Your task to perform on an android device: Show me productivity apps on the Play Store Image 0: 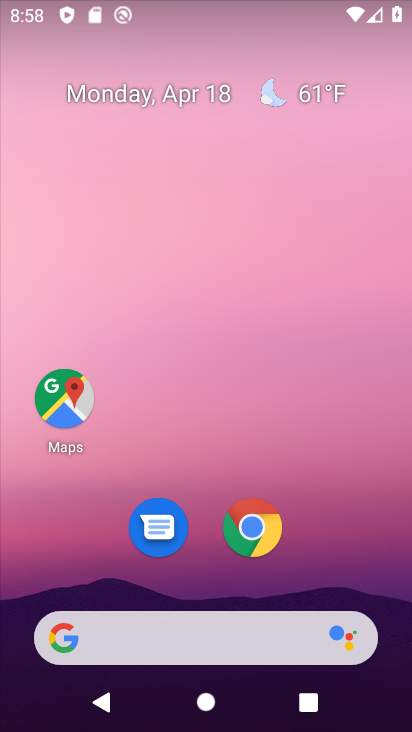
Step 0: drag from (194, 451) to (259, 30)
Your task to perform on an android device: Show me productivity apps on the Play Store Image 1: 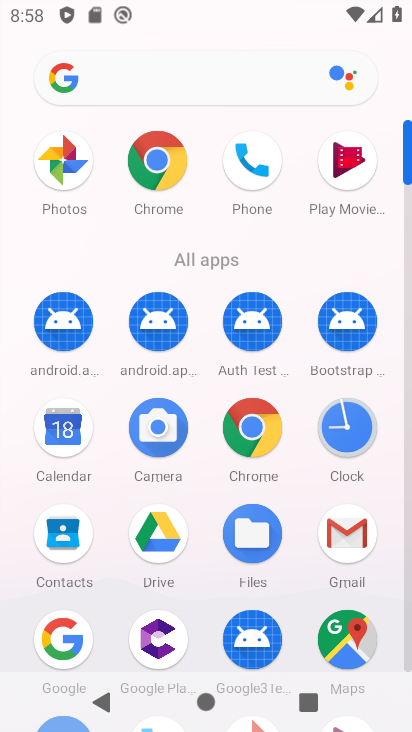
Step 1: drag from (198, 587) to (212, 148)
Your task to perform on an android device: Show me productivity apps on the Play Store Image 2: 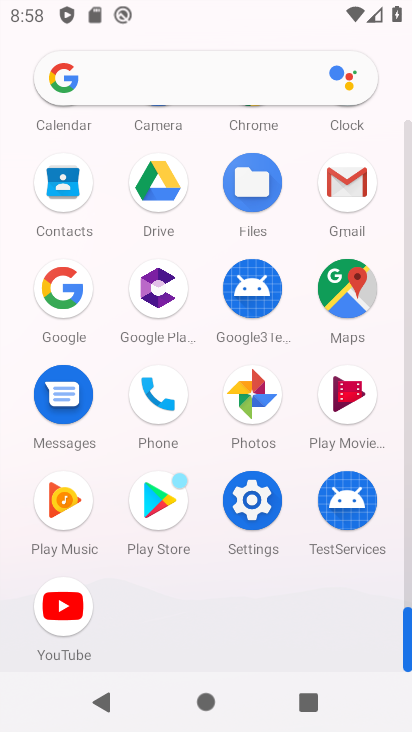
Step 2: click (173, 513)
Your task to perform on an android device: Show me productivity apps on the Play Store Image 3: 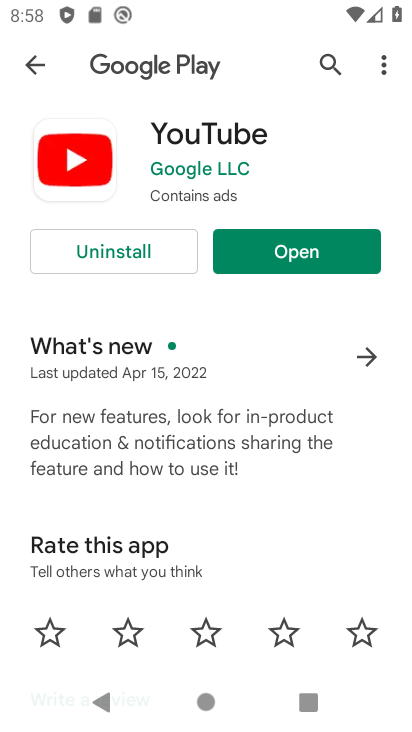
Step 3: click (25, 67)
Your task to perform on an android device: Show me productivity apps on the Play Store Image 4: 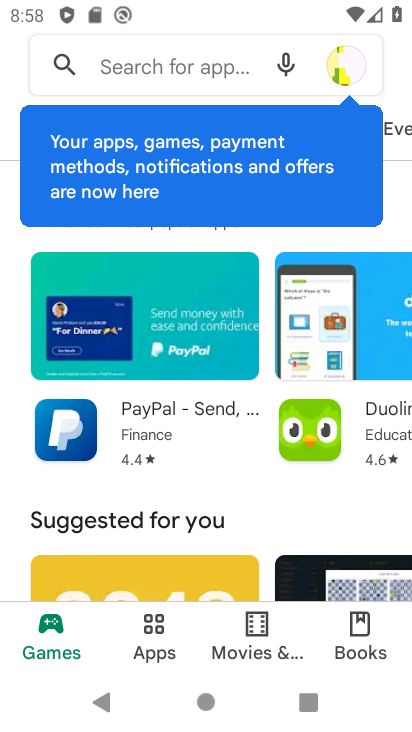
Step 4: click (154, 643)
Your task to perform on an android device: Show me productivity apps on the Play Store Image 5: 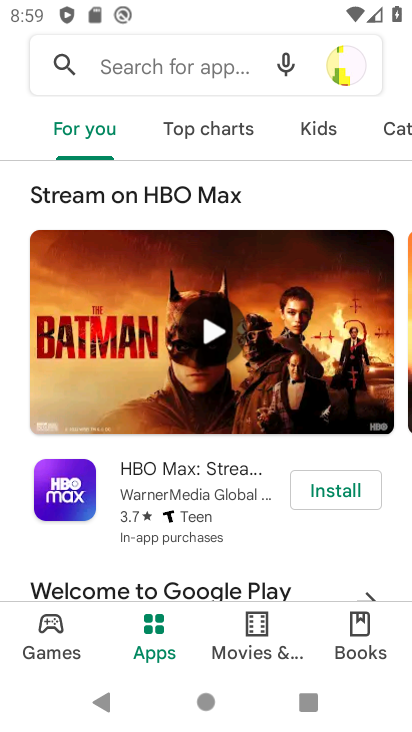
Step 5: click (190, 124)
Your task to perform on an android device: Show me productivity apps on the Play Store Image 6: 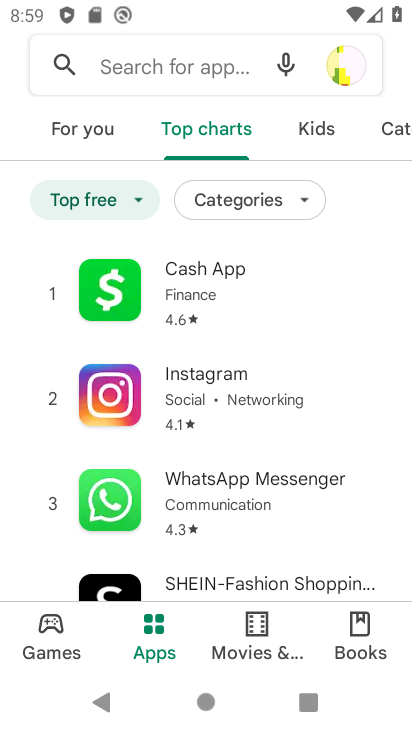
Step 6: click (305, 129)
Your task to perform on an android device: Show me productivity apps on the Play Store Image 7: 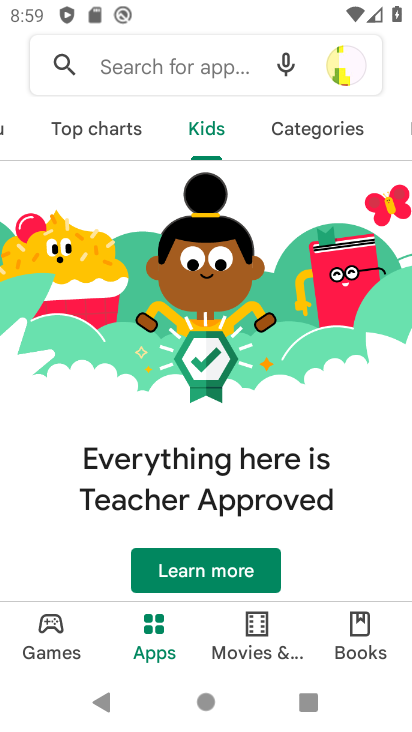
Step 7: click (305, 129)
Your task to perform on an android device: Show me productivity apps on the Play Store Image 8: 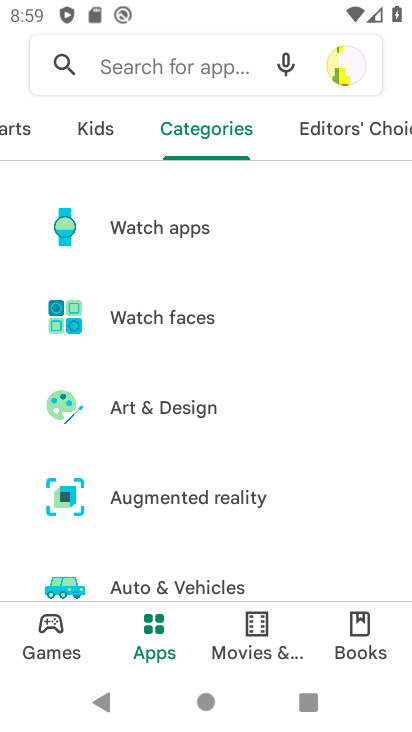
Step 8: drag from (138, 550) to (195, 109)
Your task to perform on an android device: Show me productivity apps on the Play Store Image 9: 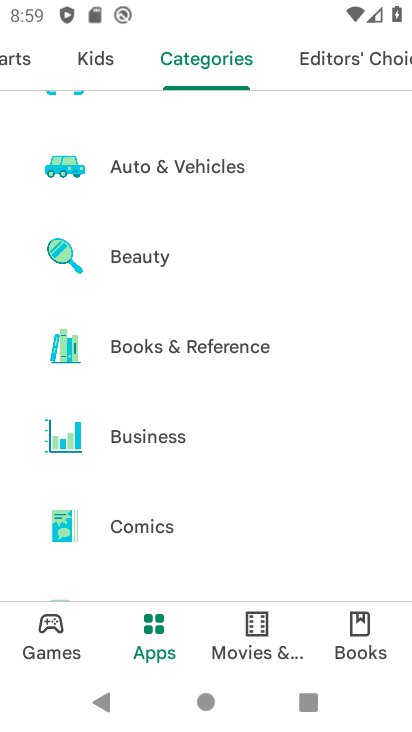
Step 9: drag from (199, 455) to (242, 9)
Your task to perform on an android device: Show me productivity apps on the Play Store Image 10: 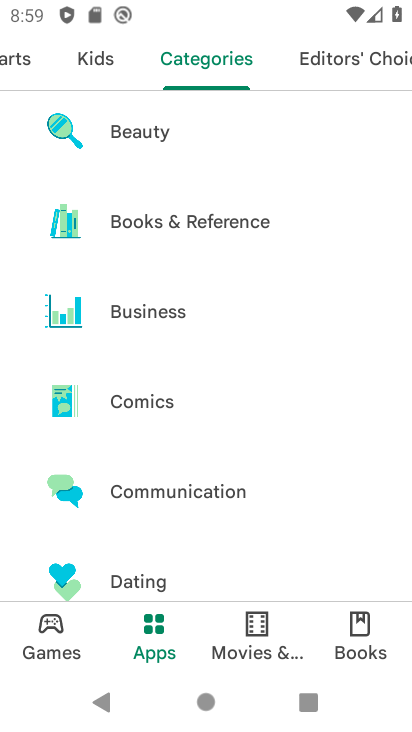
Step 10: drag from (172, 568) to (227, 205)
Your task to perform on an android device: Show me productivity apps on the Play Store Image 11: 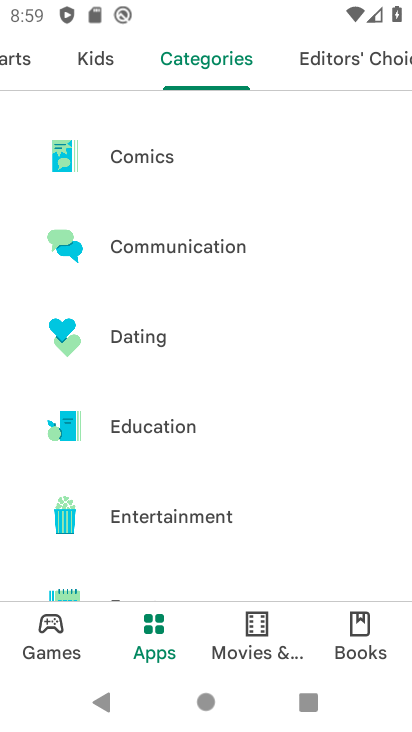
Step 11: drag from (177, 513) to (227, 97)
Your task to perform on an android device: Show me productivity apps on the Play Store Image 12: 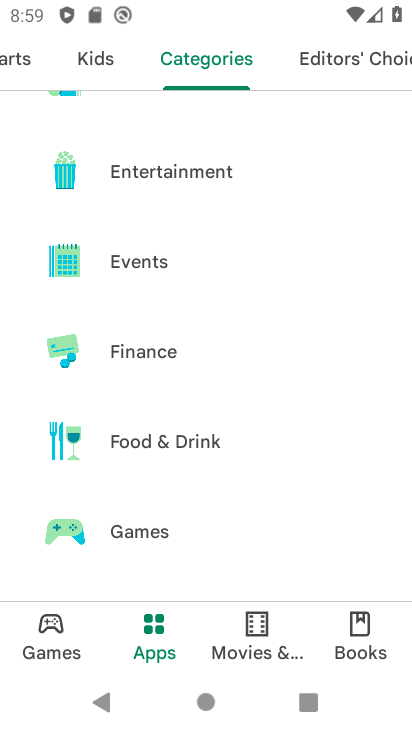
Step 12: drag from (178, 516) to (177, 97)
Your task to perform on an android device: Show me productivity apps on the Play Store Image 13: 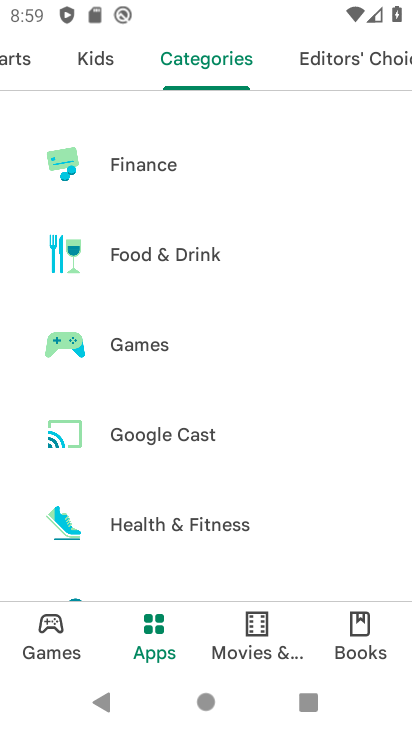
Step 13: drag from (141, 547) to (197, 107)
Your task to perform on an android device: Show me productivity apps on the Play Store Image 14: 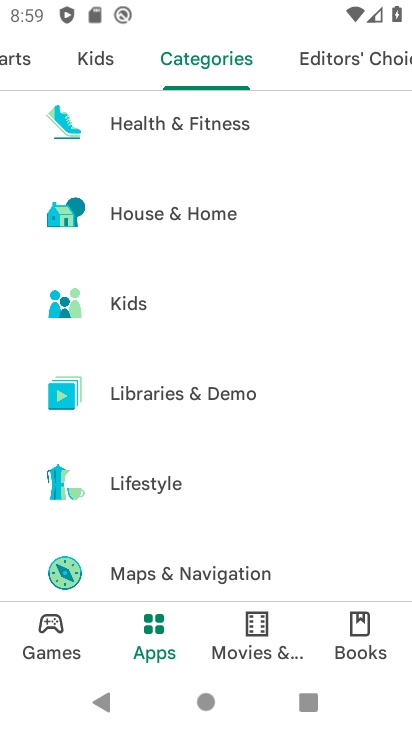
Step 14: drag from (197, 465) to (248, 63)
Your task to perform on an android device: Show me productivity apps on the Play Store Image 15: 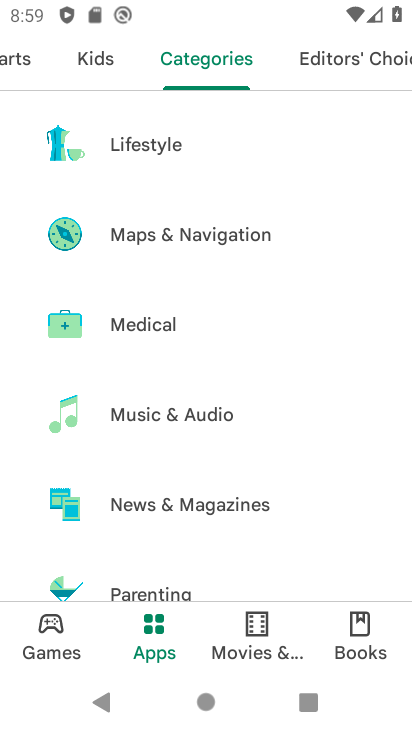
Step 15: drag from (147, 539) to (199, 64)
Your task to perform on an android device: Show me productivity apps on the Play Store Image 16: 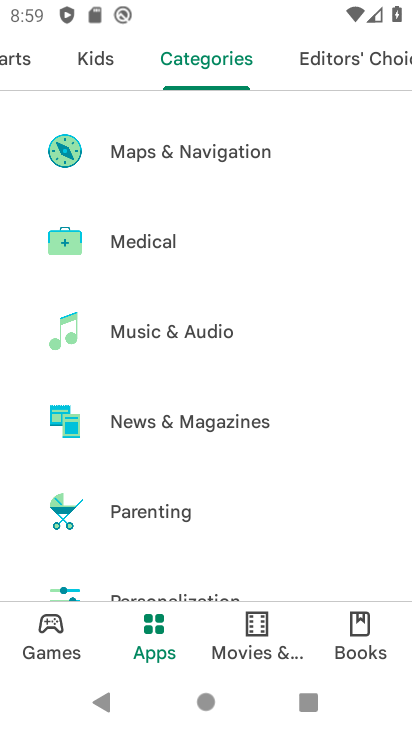
Step 16: drag from (148, 500) to (167, 137)
Your task to perform on an android device: Show me productivity apps on the Play Store Image 17: 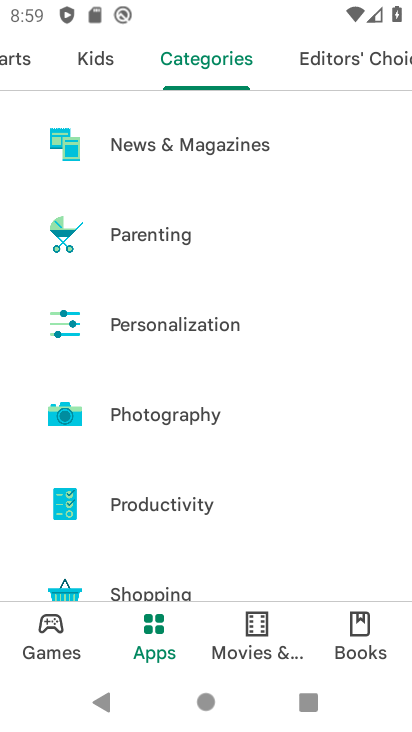
Step 17: click (190, 504)
Your task to perform on an android device: Show me productivity apps on the Play Store Image 18: 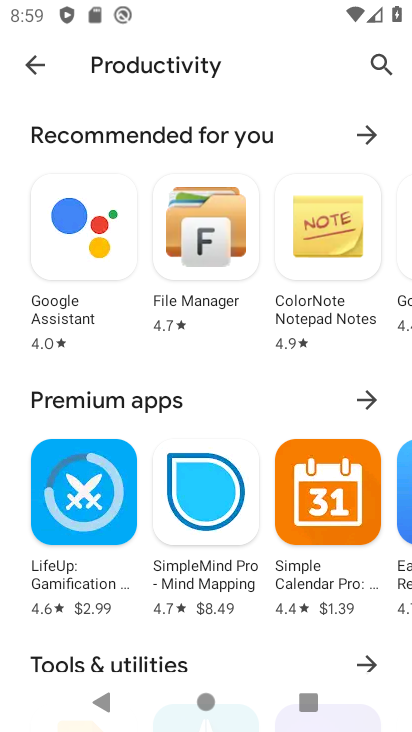
Step 18: task complete